Your task to perform on an android device: turn off wifi Image 0: 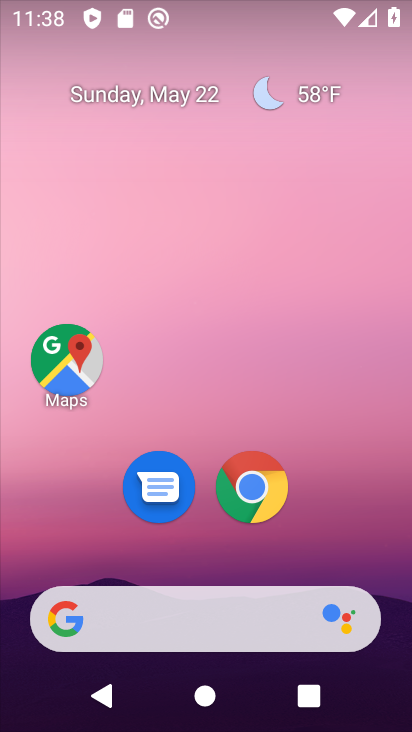
Step 0: drag from (323, 440) to (342, 62)
Your task to perform on an android device: turn off wifi Image 1: 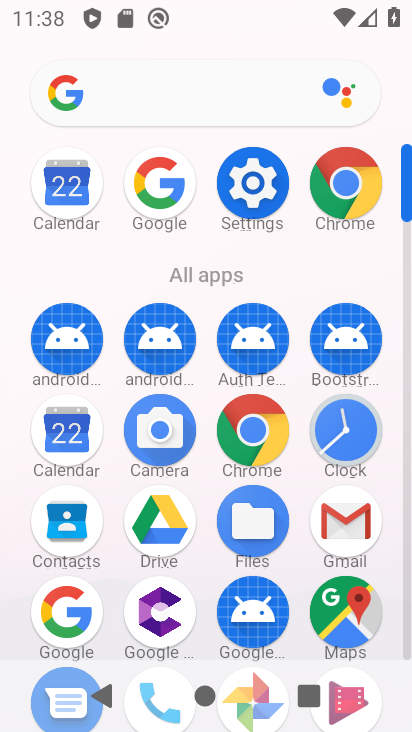
Step 1: click (249, 191)
Your task to perform on an android device: turn off wifi Image 2: 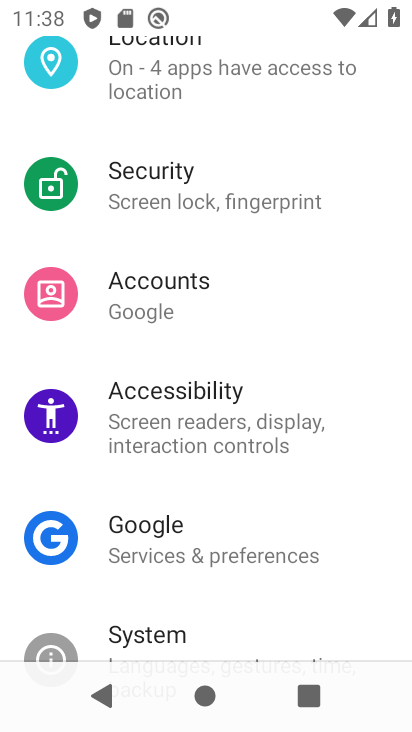
Step 2: drag from (249, 191) to (299, 562)
Your task to perform on an android device: turn off wifi Image 3: 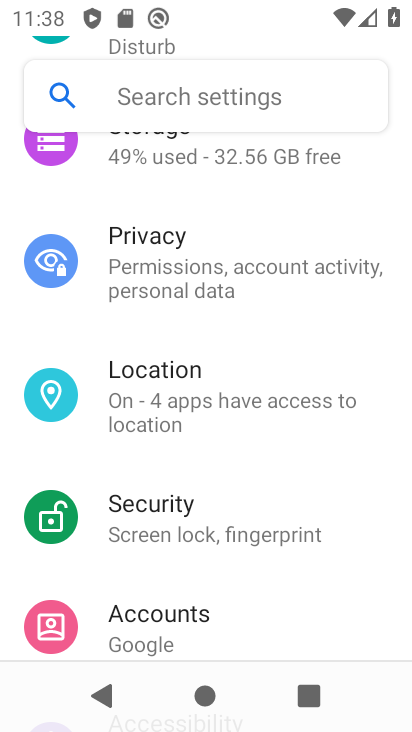
Step 3: drag from (247, 199) to (246, 579)
Your task to perform on an android device: turn off wifi Image 4: 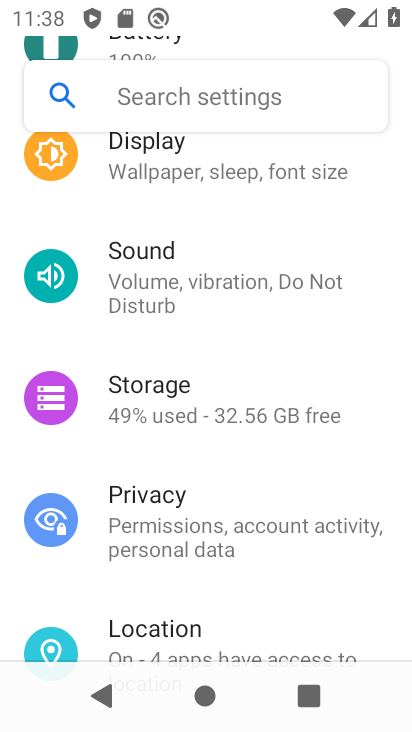
Step 4: drag from (198, 160) to (219, 544)
Your task to perform on an android device: turn off wifi Image 5: 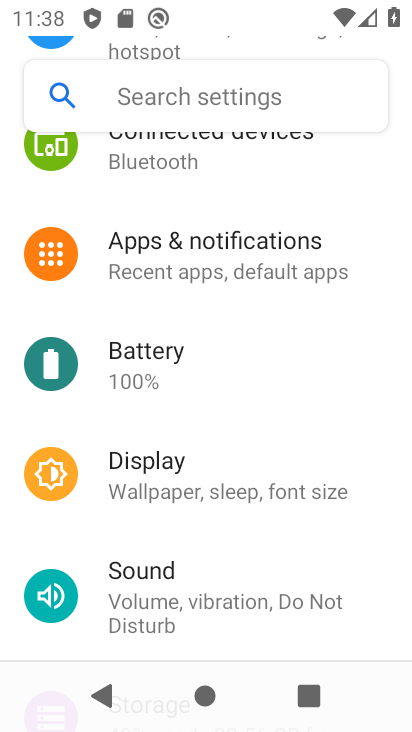
Step 5: drag from (192, 131) to (182, 568)
Your task to perform on an android device: turn off wifi Image 6: 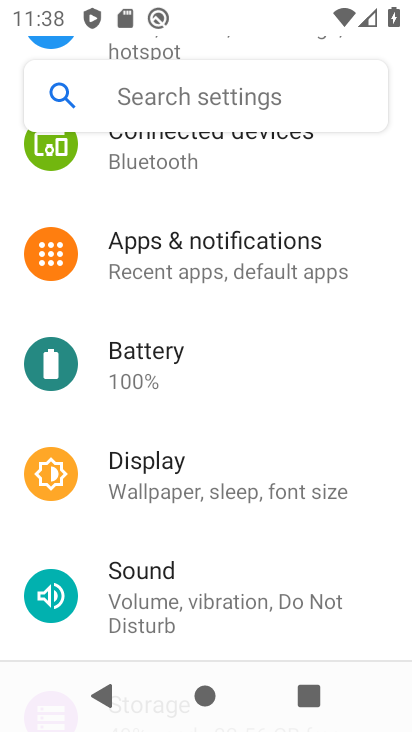
Step 6: drag from (225, 335) to (217, 705)
Your task to perform on an android device: turn off wifi Image 7: 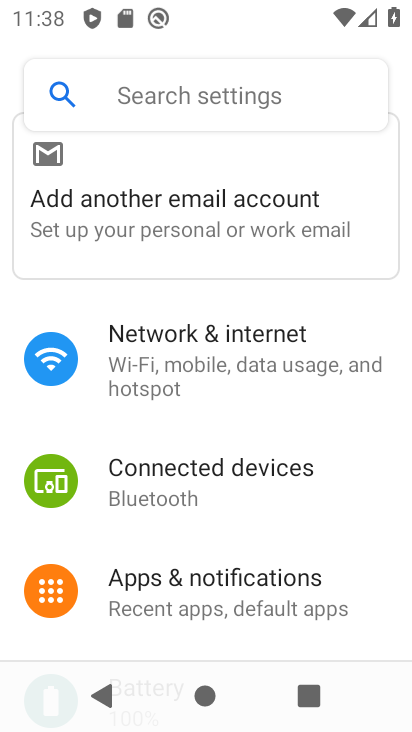
Step 7: click (214, 343)
Your task to perform on an android device: turn off wifi Image 8: 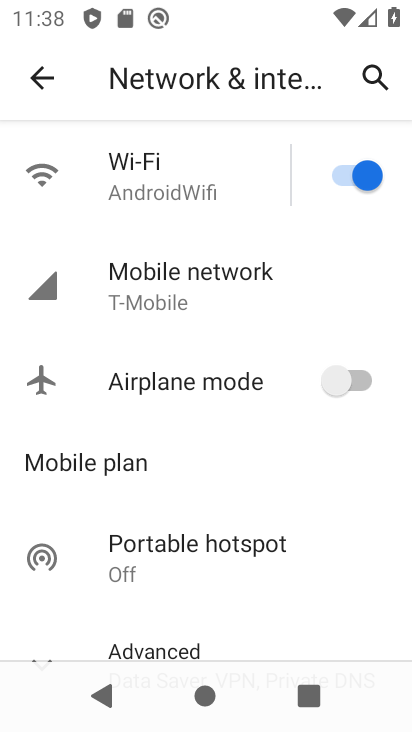
Step 8: click (344, 175)
Your task to perform on an android device: turn off wifi Image 9: 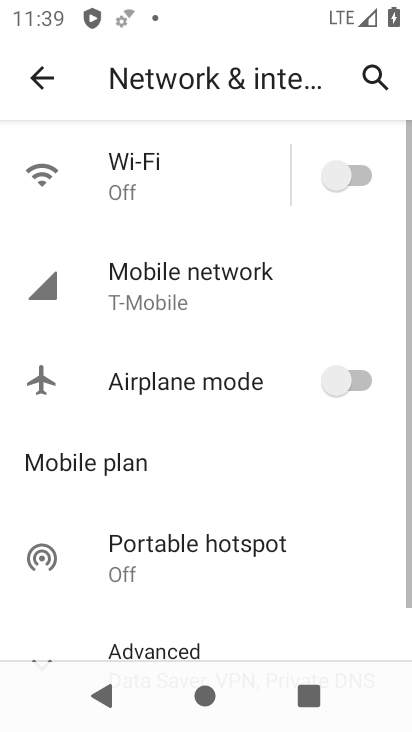
Step 9: task complete